Your task to perform on an android device: turn on the 12-hour format for clock Image 0: 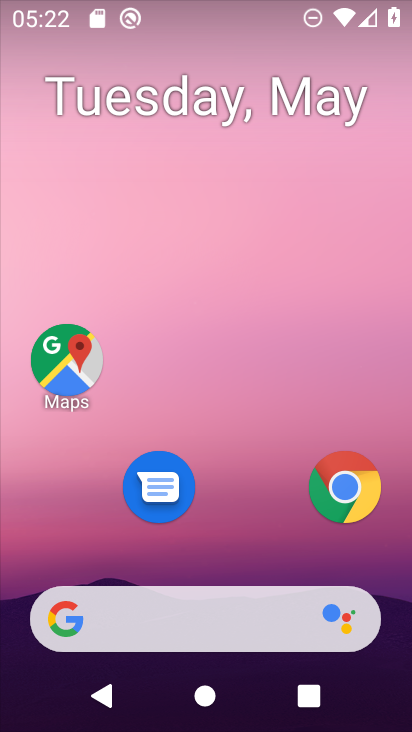
Step 0: drag from (234, 568) to (218, 193)
Your task to perform on an android device: turn on the 12-hour format for clock Image 1: 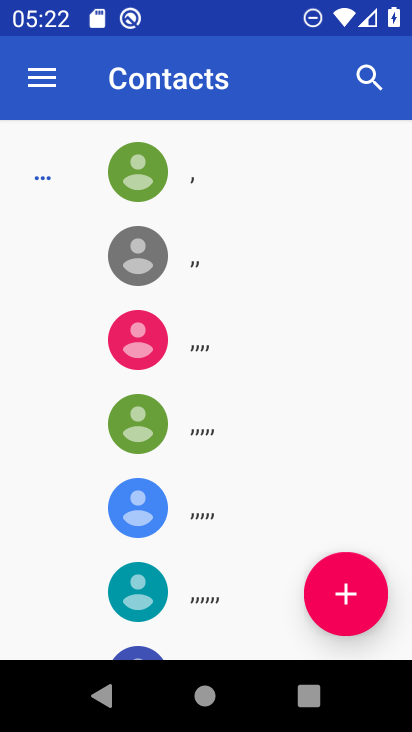
Step 1: press home button
Your task to perform on an android device: turn on the 12-hour format for clock Image 2: 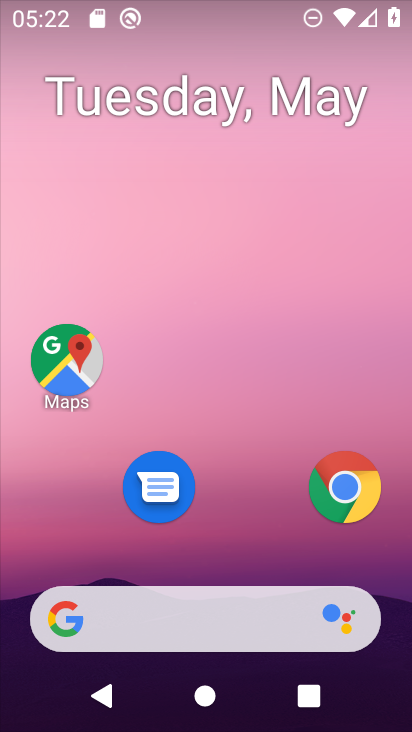
Step 2: drag from (235, 526) to (256, 84)
Your task to perform on an android device: turn on the 12-hour format for clock Image 3: 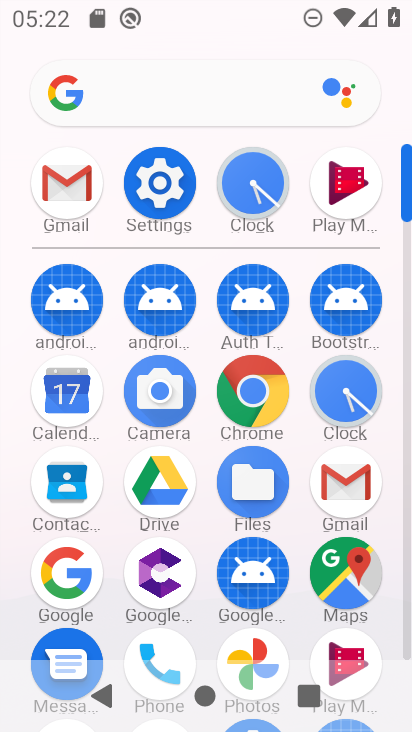
Step 3: click (247, 199)
Your task to perform on an android device: turn on the 12-hour format for clock Image 4: 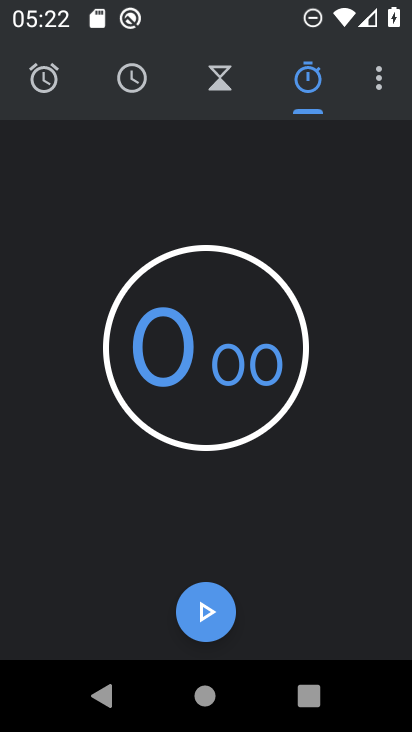
Step 4: click (368, 89)
Your task to perform on an android device: turn on the 12-hour format for clock Image 5: 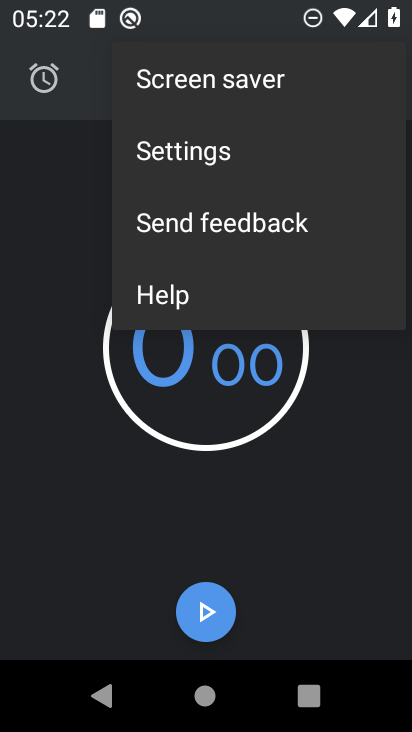
Step 5: click (271, 148)
Your task to perform on an android device: turn on the 12-hour format for clock Image 6: 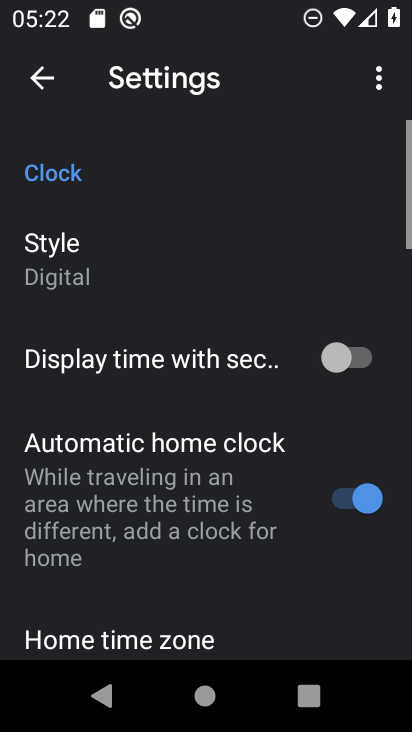
Step 6: drag from (191, 582) to (219, 319)
Your task to perform on an android device: turn on the 12-hour format for clock Image 7: 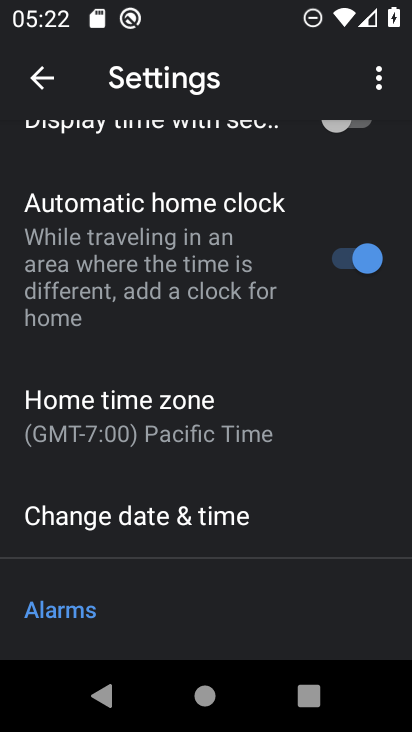
Step 7: click (207, 490)
Your task to perform on an android device: turn on the 12-hour format for clock Image 8: 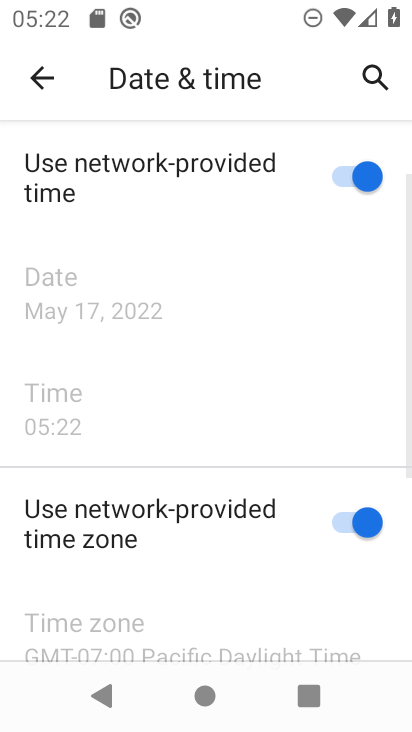
Step 8: drag from (144, 565) to (196, 162)
Your task to perform on an android device: turn on the 12-hour format for clock Image 9: 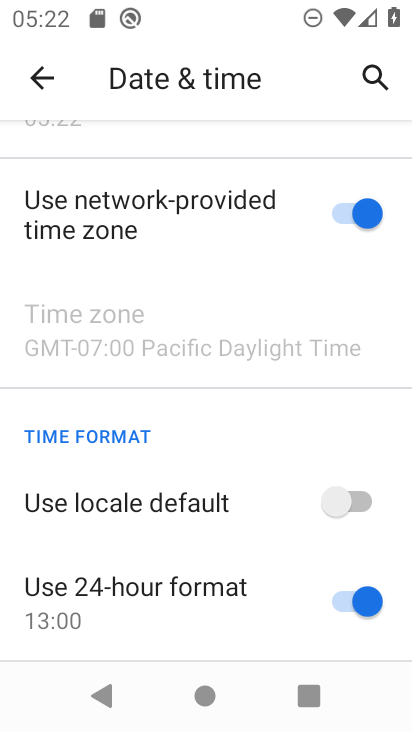
Step 9: click (333, 593)
Your task to perform on an android device: turn on the 12-hour format for clock Image 10: 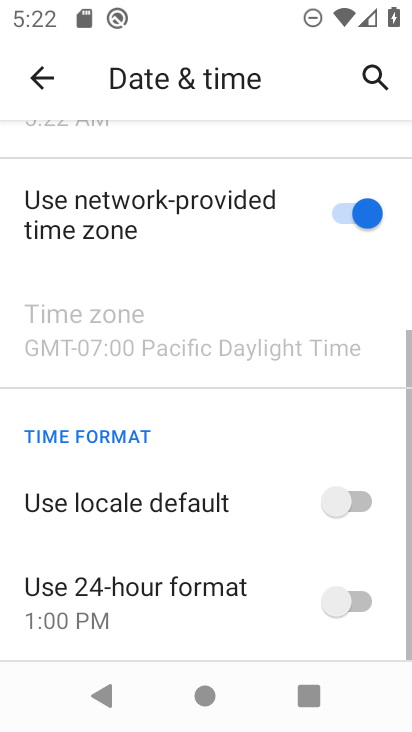
Step 10: task complete